Your task to perform on an android device: Go to Android settings Image 0: 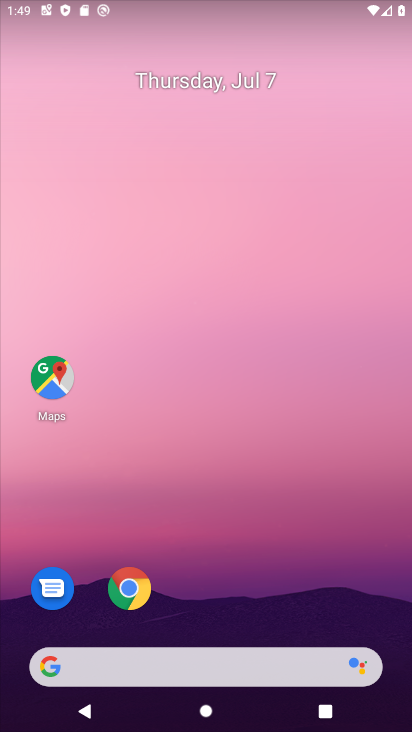
Step 0: drag from (239, 458) to (311, 8)
Your task to perform on an android device: Go to Android settings Image 1: 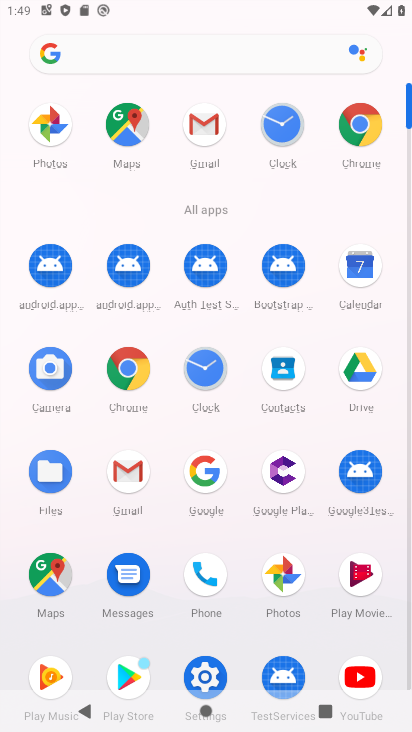
Step 1: click (217, 666)
Your task to perform on an android device: Go to Android settings Image 2: 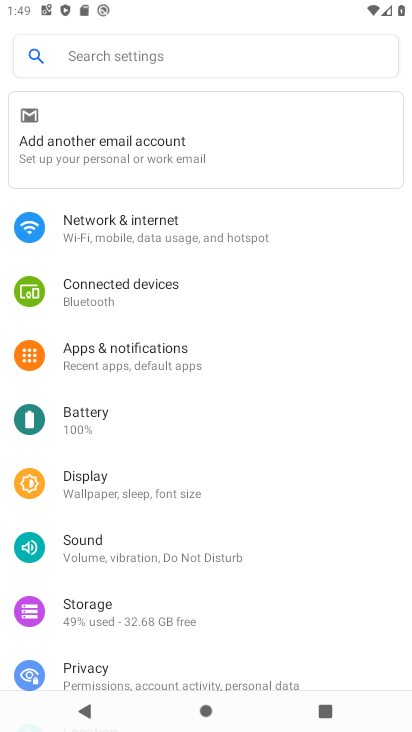
Step 2: drag from (161, 597) to (261, 6)
Your task to perform on an android device: Go to Android settings Image 3: 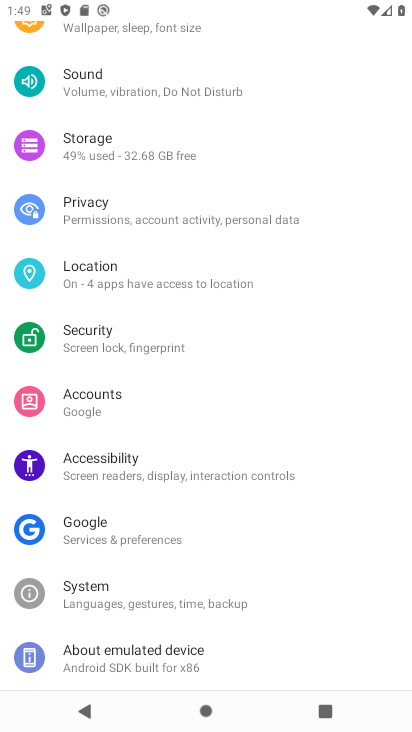
Step 3: drag from (171, 622) to (263, 56)
Your task to perform on an android device: Go to Android settings Image 4: 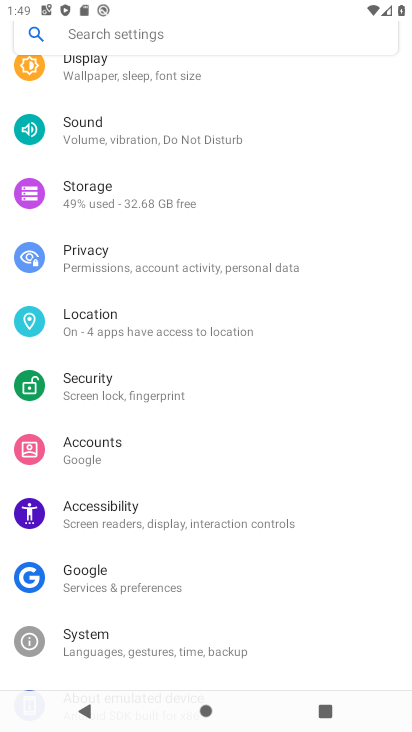
Step 4: click (110, 667)
Your task to perform on an android device: Go to Android settings Image 5: 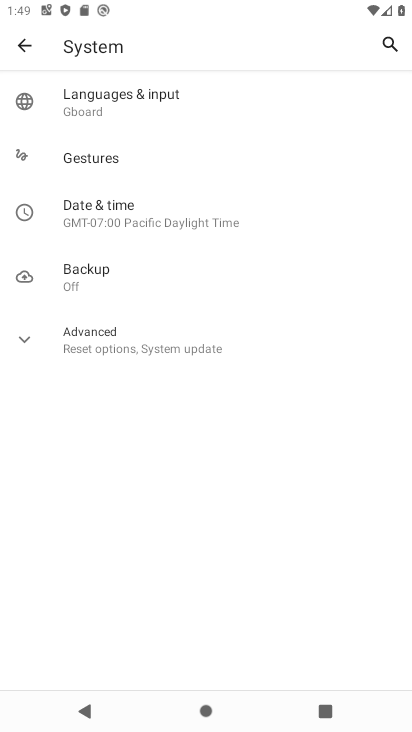
Step 5: click (28, 35)
Your task to perform on an android device: Go to Android settings Image 6: 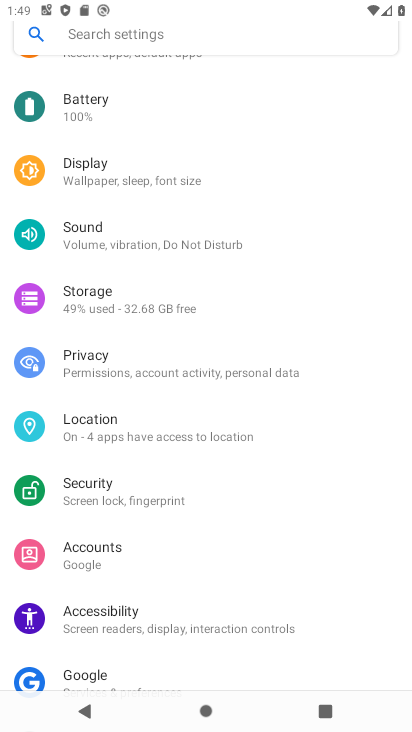
Step 6: drag from (169, 614) to (267, 22)
Your task to perform on an android device: Go to Android settings Image 7: 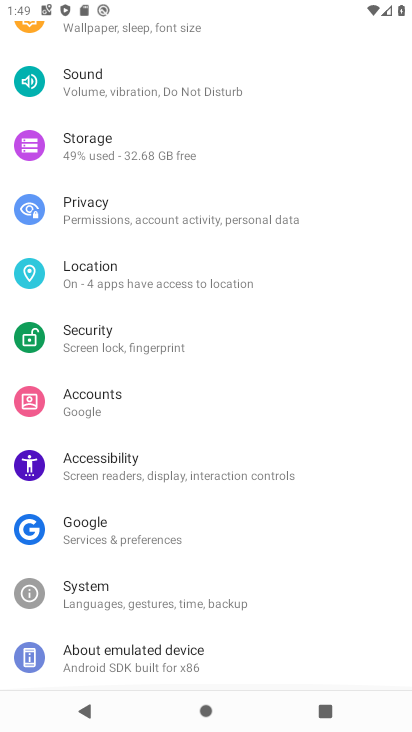
Step 7: drag from (123, 612) to (213, 74)
Your task to perform on an android device: Go to Android settings Image 8: 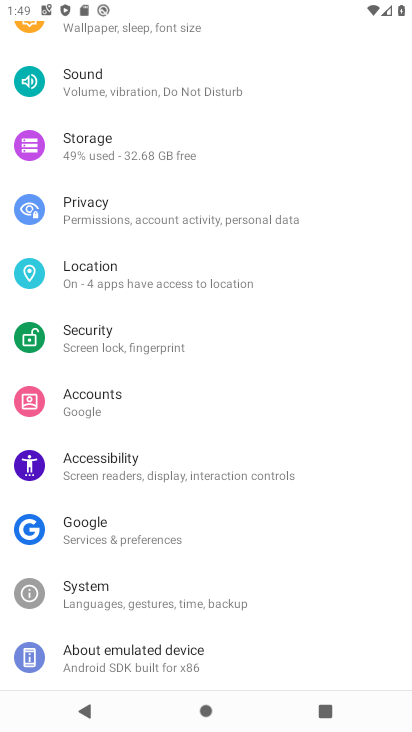
Step 8: click (110, 662)
Your task to perform on an android device: Go to Android settings Image 9: 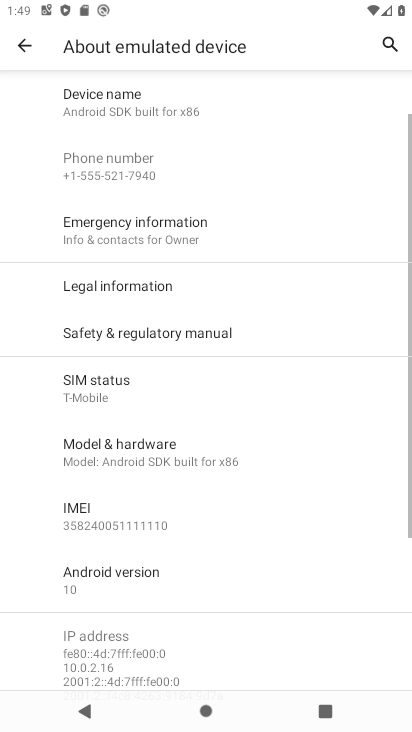
Step 9: click (150, 573)
Your task to perform on an android device: Go to Android settings Image 10: 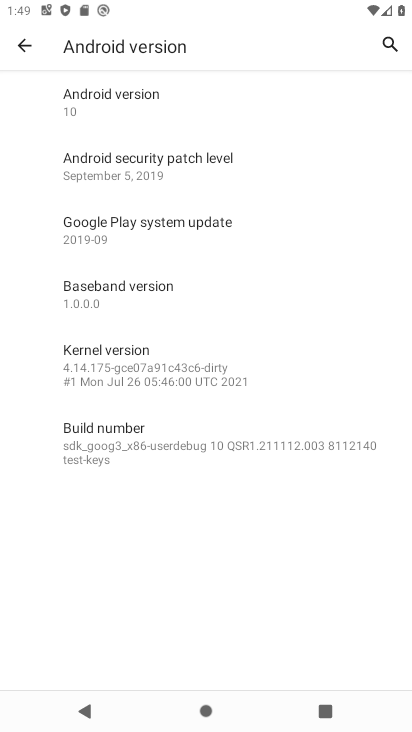
Step 10: task complete